Your task to perform on an android device: delete location history Image 0: 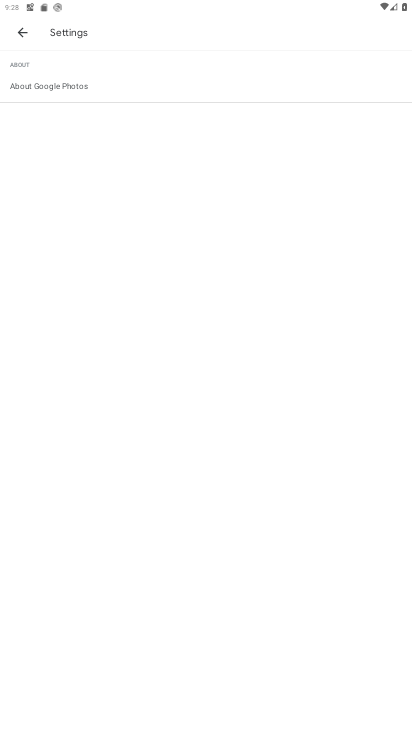
Step 0: press home button
Your task to perform on an android device: delete location history Image 1: 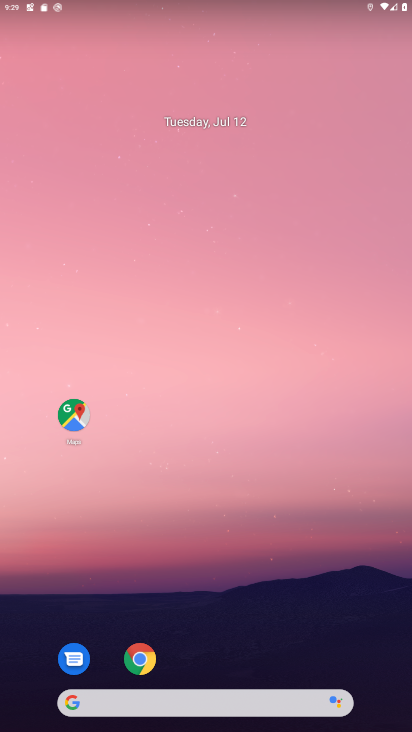
Step 1: drag from (221, 643) to (263, 125)
Your task to perform on an android device: delete location history Image 2: 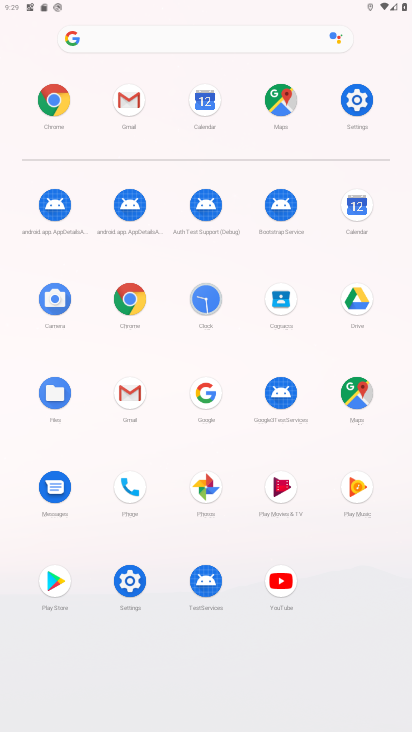
Step 2: click (282, 100)
Your task to perform on an android device: delete location history Image 3: 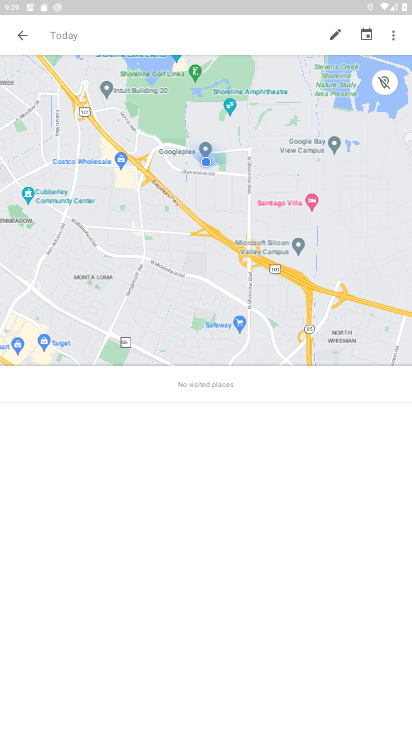
Step 3: click (397, 31)
Your task to perform on an android device: delete location history Image 4: 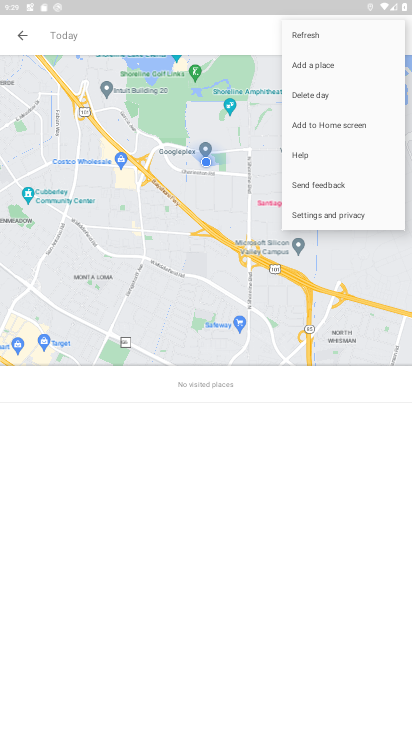
Step 4: click (351, 212)
Your task to perform on an android device: delete location history Image 5: 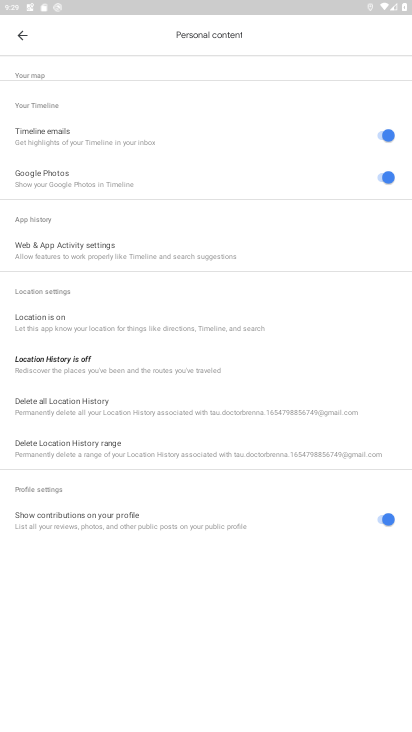
Step 5: click (86, 394)
Your task to perform on an android device: delete location history Image 6: 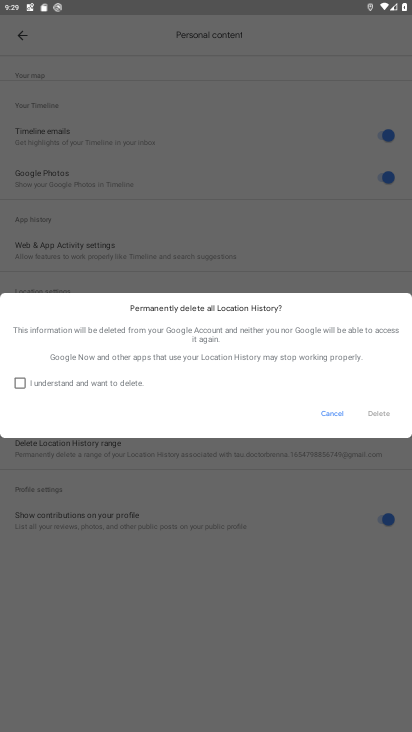
Step 6: click (23, 377)
Your task to perform on an android device: delete location history Image 7: 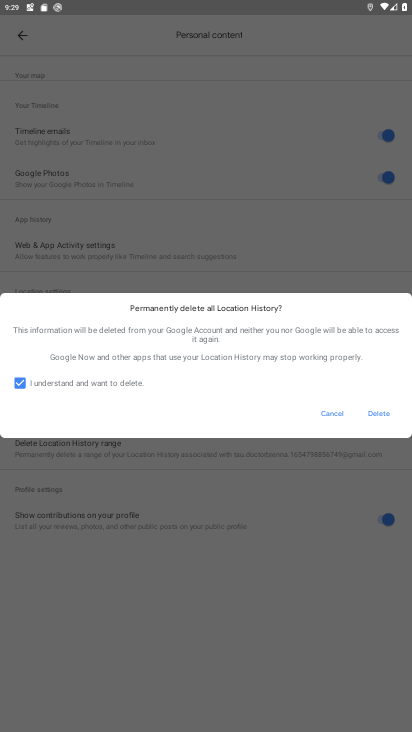
Step 7: click (381, 408)
Your task to perform on an android device: delete location history Image 8: 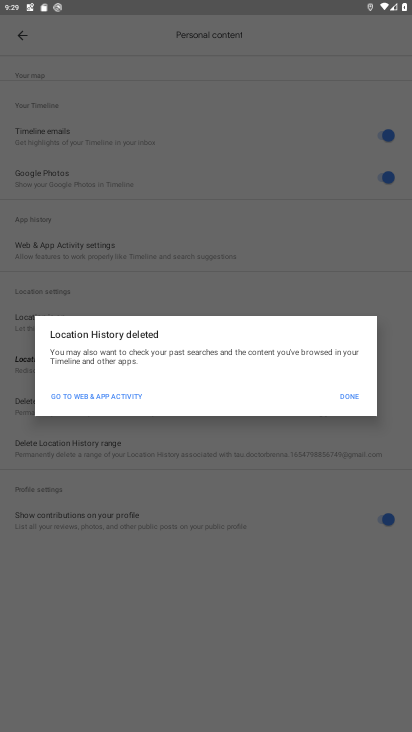
Step 8: click (344, 393)
Your task to perform on an android device: delete location history Image 9: 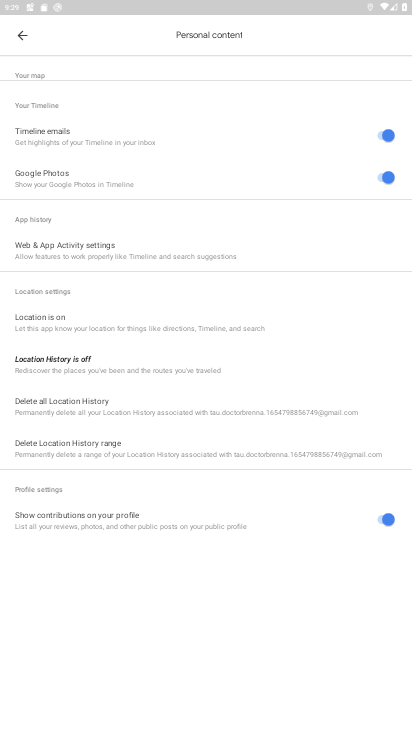
Step 9: task complete